Your task to perform on an android device: turn off sleep mode Image 0: 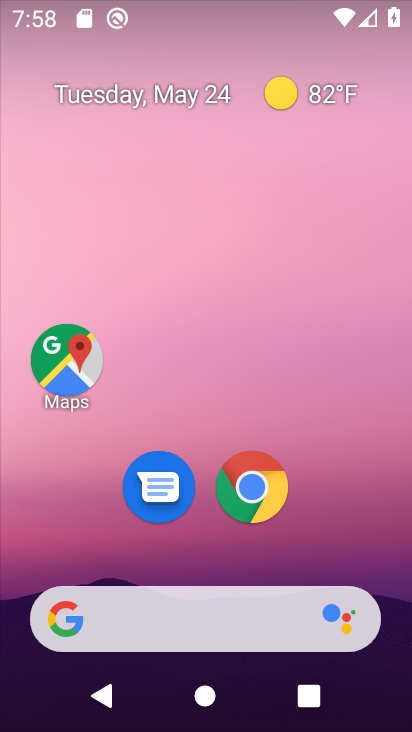
Step 0: drag from (352, 545) to (385, 130)
Your task to perform on an android device: turn off sleep mode Image 1: 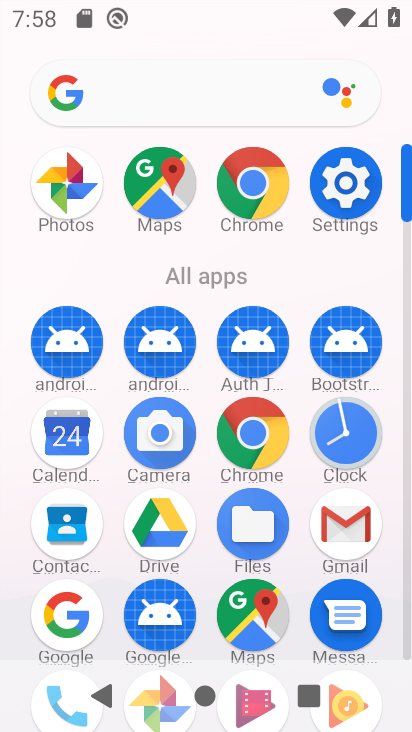
Step 1: click (343, 193)
Your task to perform on an android device: turn off sleep mode Image 2: 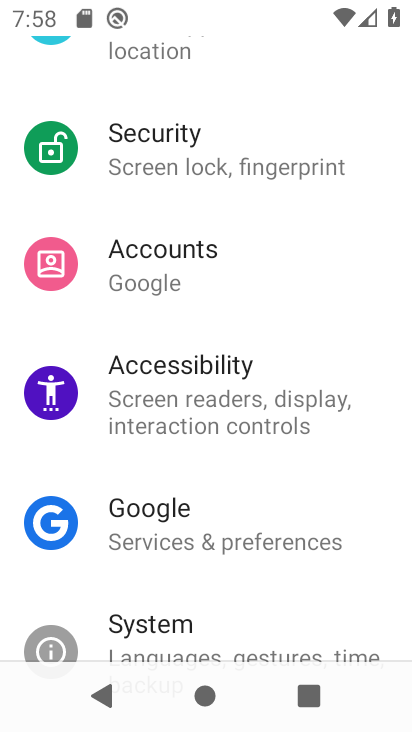
Step 2: drag from (293, 131) to (181, 543)
Your task to perform on an android device: turn off sleep mode Image 3: 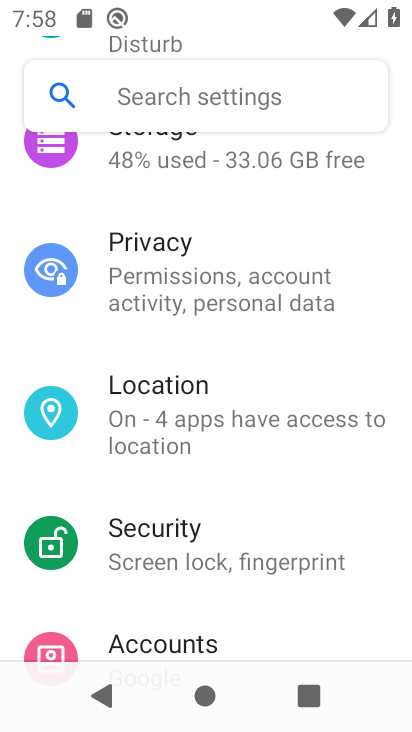
Step 3: click (225, 113)
Your task to perform on an android device: turn off sleep mode Image 4: 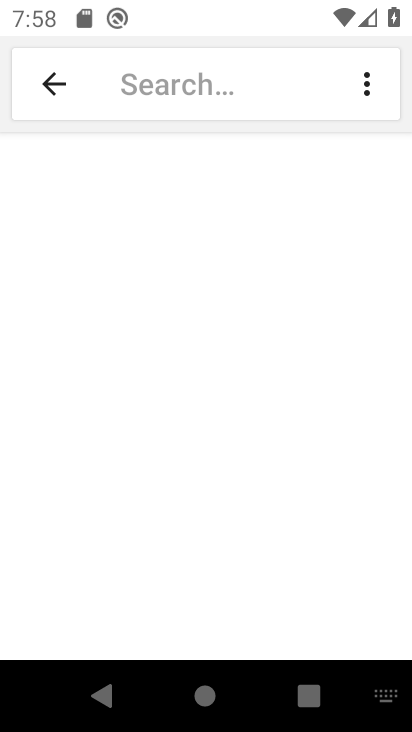
Step 4: type "sleep mode"
Your task to perform on an android device: turn off sleep mode Image 5: 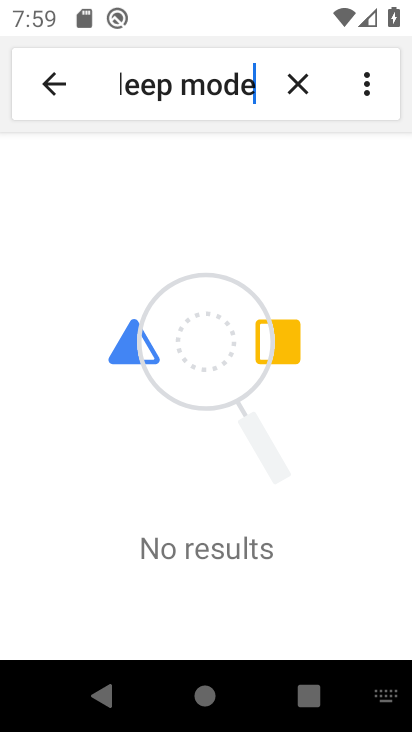
Step 5: task complete